Your task to perform on an android device: remove spam from my inbox in the gmail app Image 0: 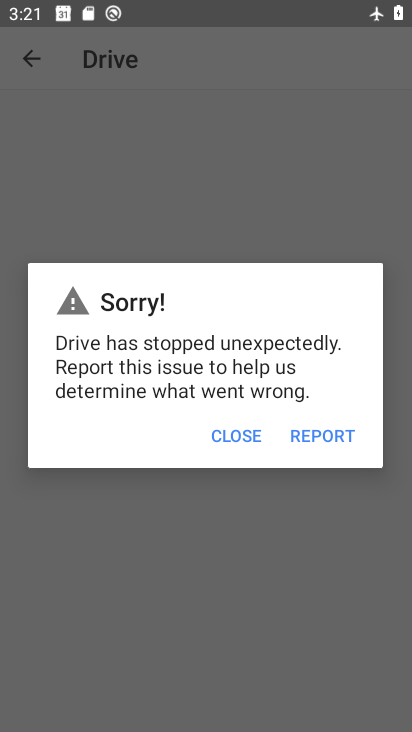
Step 0: press home button
Your task to perform on an android device: remove spam from my inbox in the gmail app Image 1: 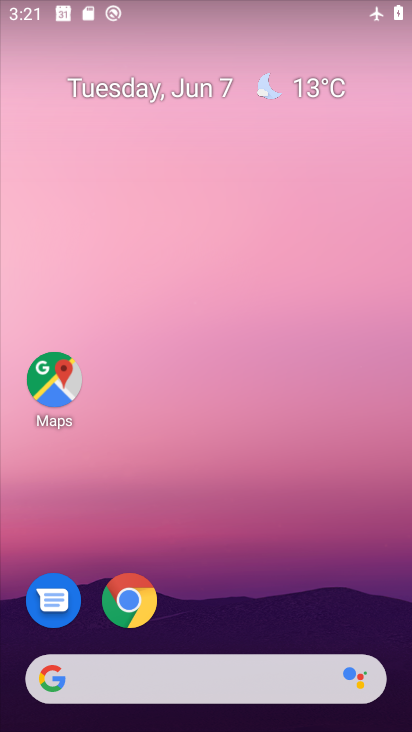
Step 1: drag from (258, 610) to (216, 94)
Your task to perform on an android device: remove spam from my inbox in the gmail app Image 2: 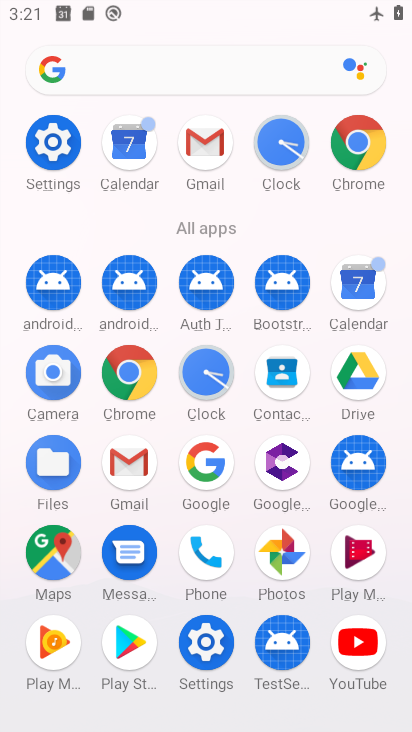
Step 2: click (121, 474)
Your task to perform on an android device: remove spam from my inbox in the gmail app Image 3: 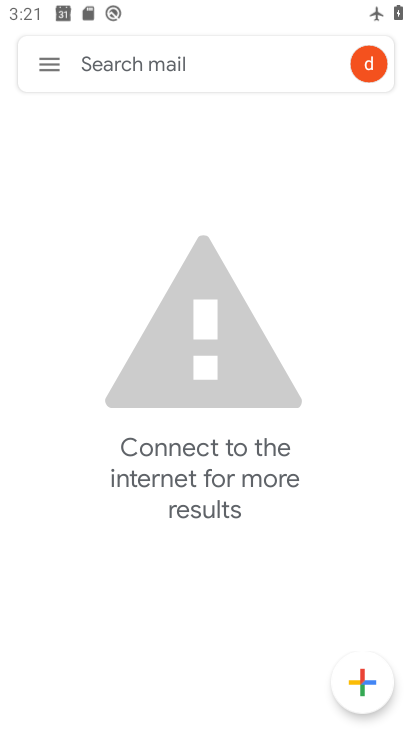
Step 3: click (55, 64)
Your task to perform on an android device: remove spam from my inbox in the gmail app Image 4: 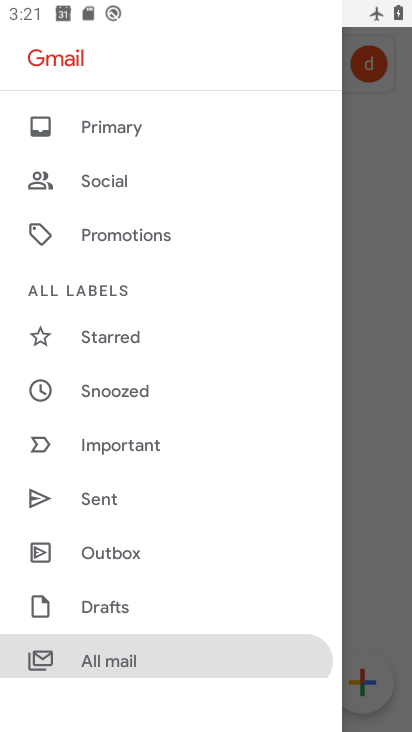
Step 4: drag from (105, 665) to (150, 159)
Your task to perform on an android device: remove spam from my inbox in the gmail app Image 5: 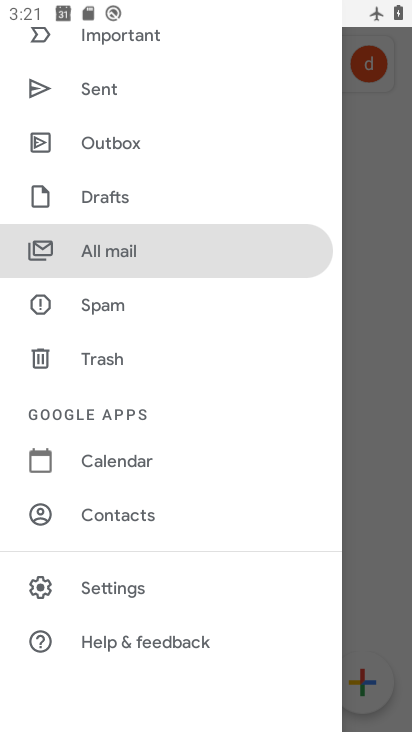
Step 5: click (107, 314)
Your task to perform on an android device: remove spam from my inbox in the gmail app Image 6: 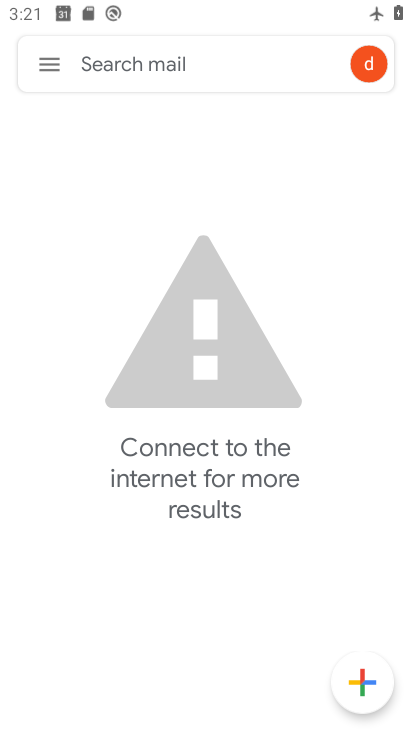
Step 6: task complete